Your task to perform on an android device: Go to CNN.com Image 0: 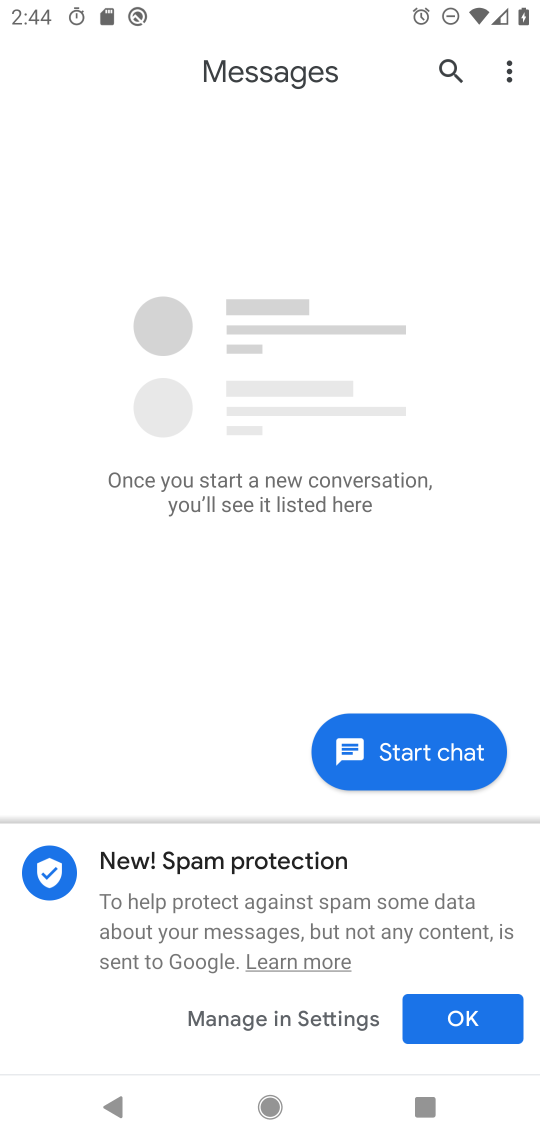
Step 0: press home button
Your task to perform on an android device: Go to CNN.com Image 1: 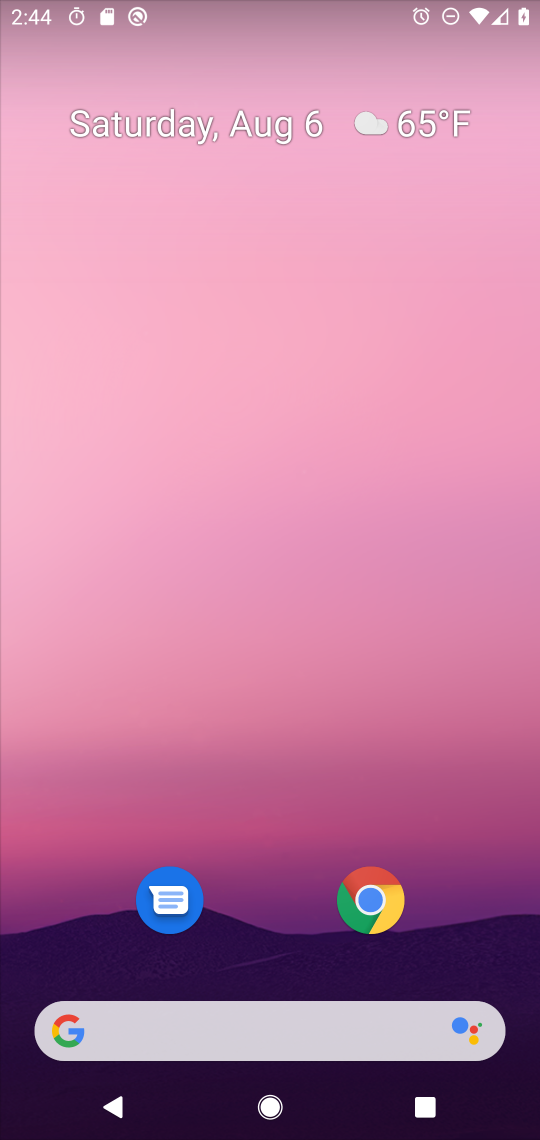
Step 1: drag from (274, 982) to (286, 0)
Your task to perform on an android device: Go to CNN.com Image 2: 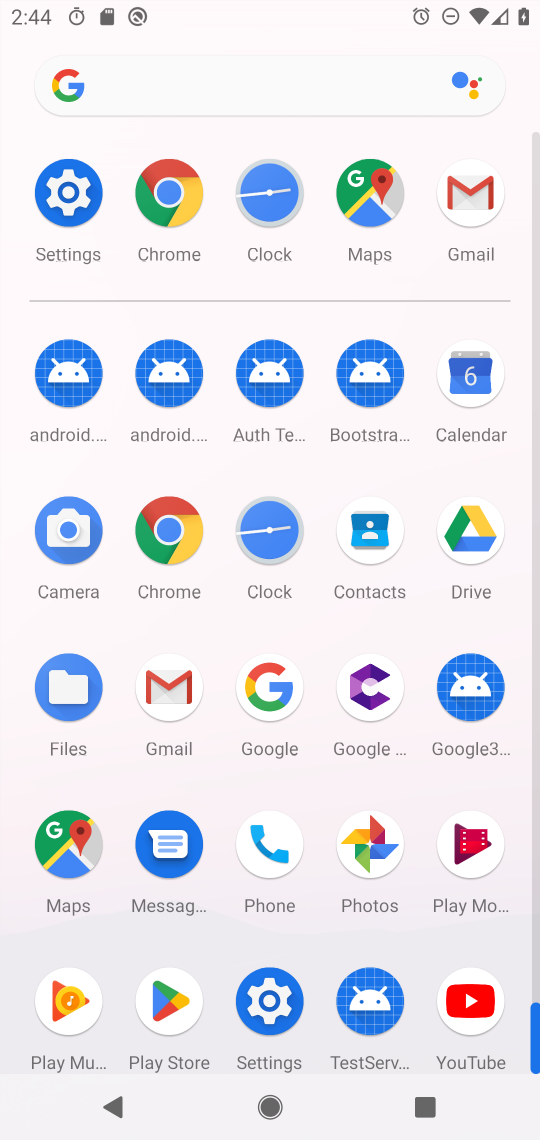
Step 2: click (164, 534)
Your task to perform on an android device: Go to CNN.com Image 3: 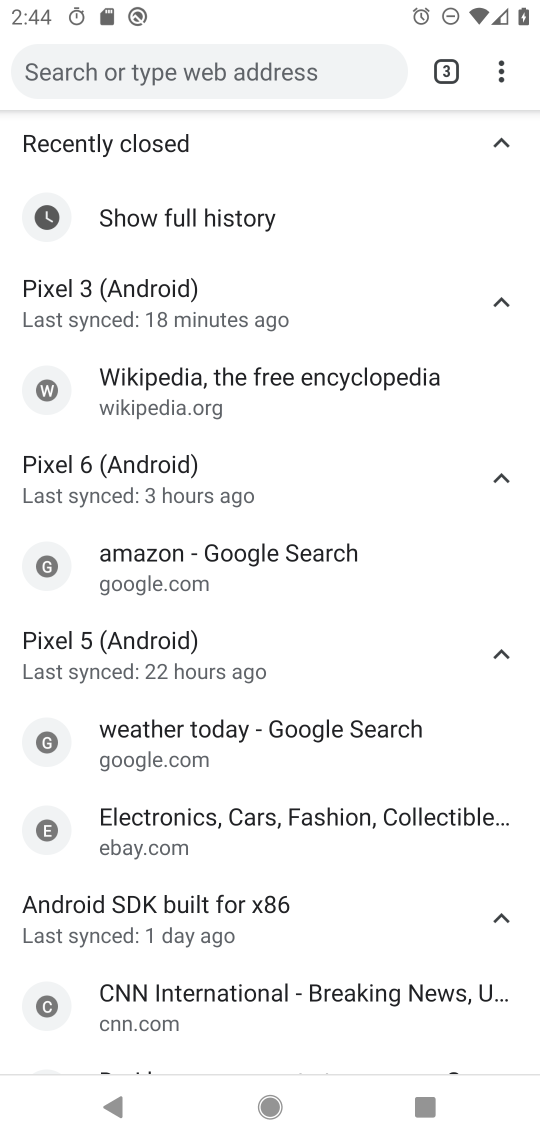
Step 3: click (501, 77)
Your task to perform on an android device: Go to CNN.com Image 4: 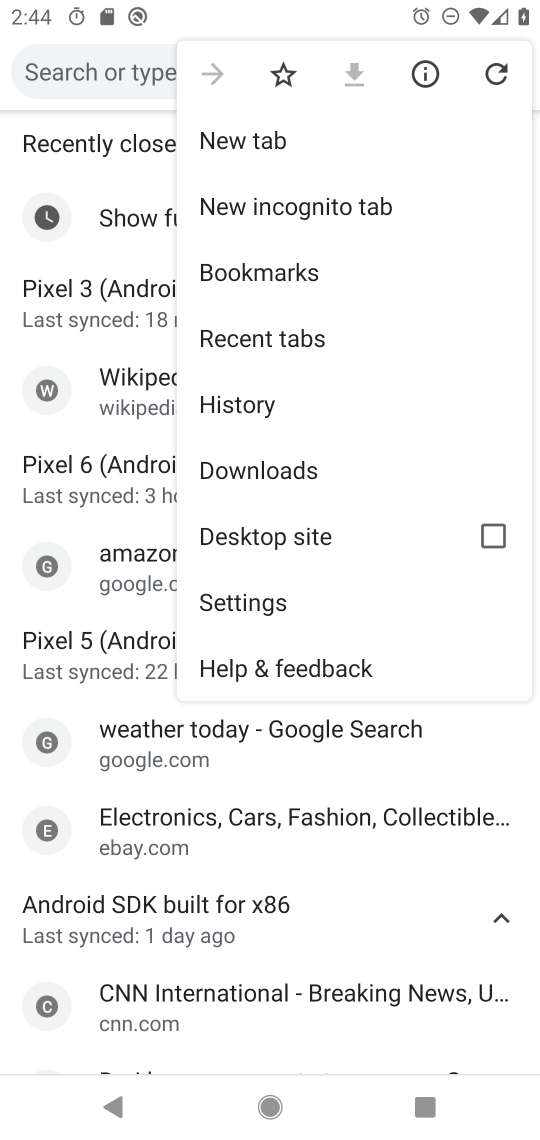
Step 4: click (244, 137)
Your task to perform on an android device: Go to CNN.com Image 5: 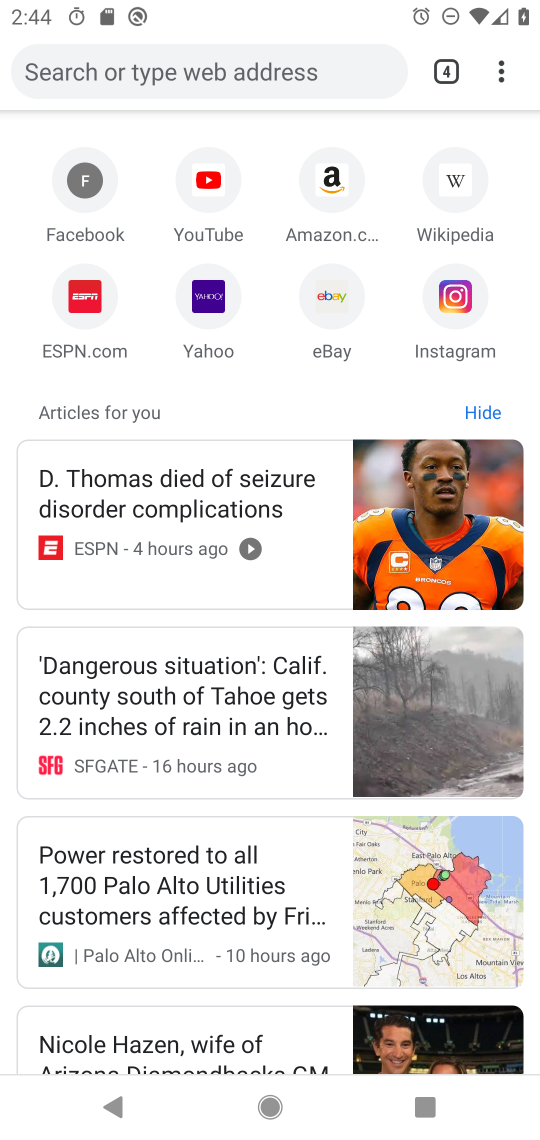
Step 5: click (233, 78)
Your task to perform on an android device: Go to CNN.com Image 6: 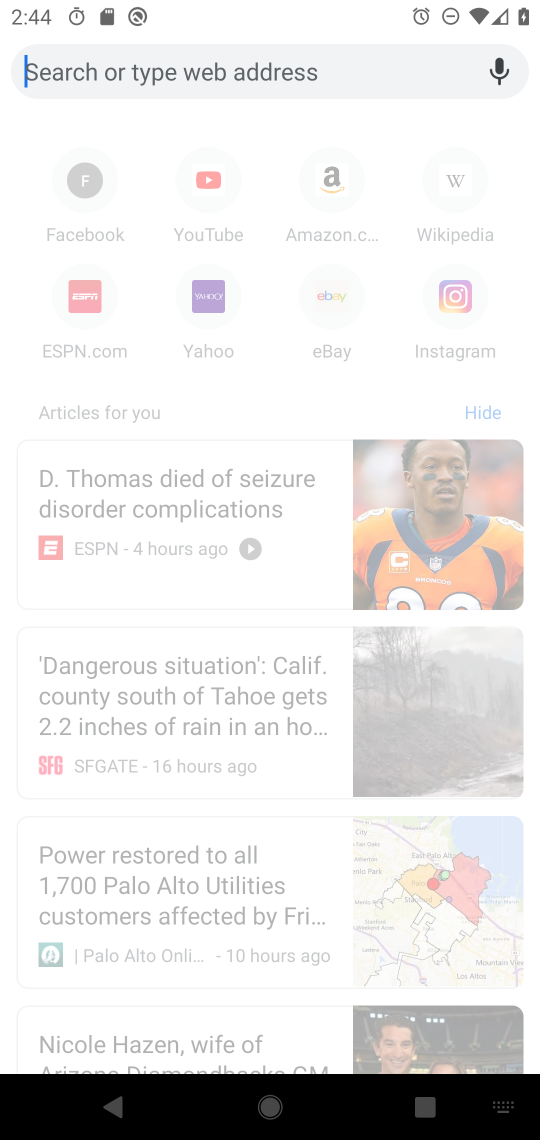
Step 6: type "CNN.com"
Your task to perform on an android device: Go to CNN.com Image 7: 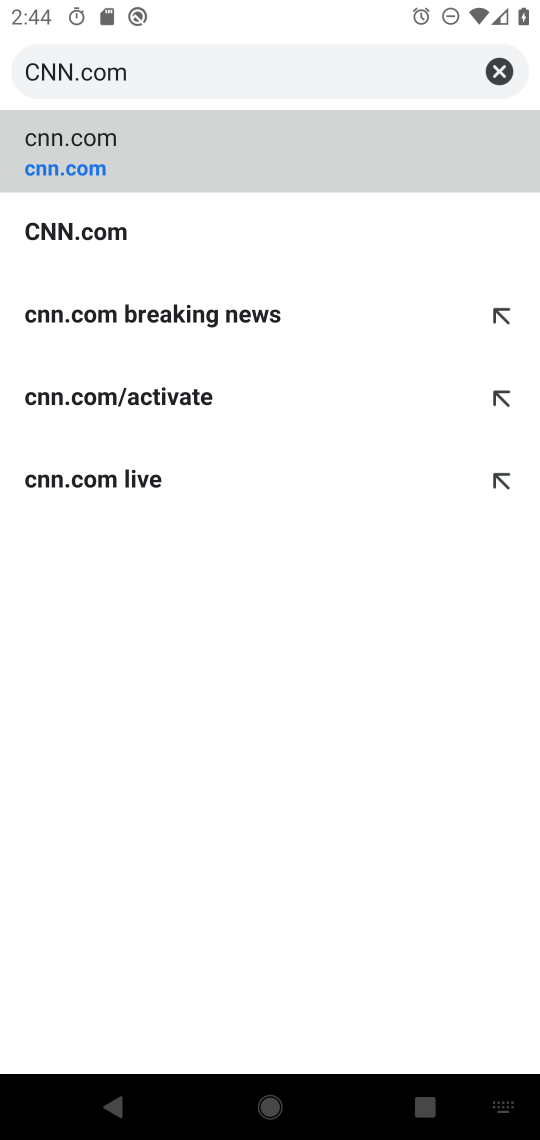
Step 7: click (70, 139)
Your task to perform on an android device: Go to CNN.com Image 8: 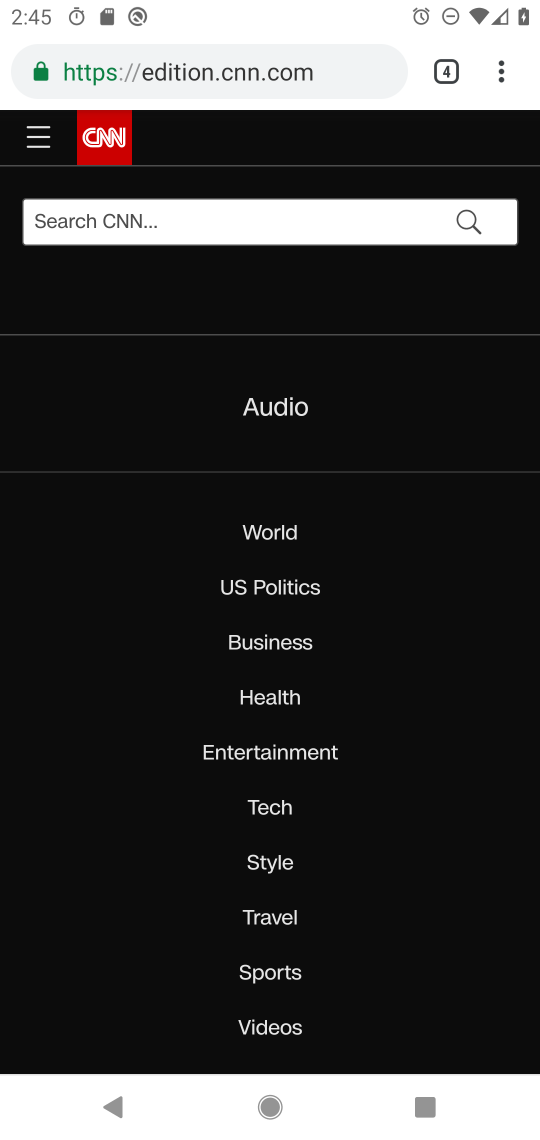
Step 8: task complete